Your task to perform on an android device: Open calendar and show me the second week of next month Image 0: 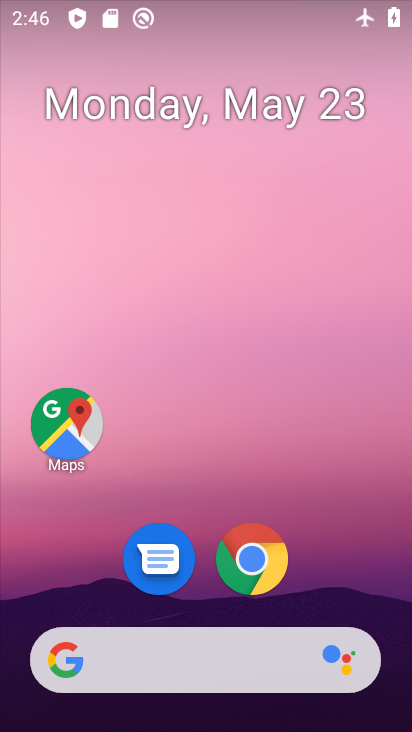
Step 0: drag from (227, 689) to (280, 65)
Your task to perform on an android device: Open calendar and show me the second week of next month Image 1: 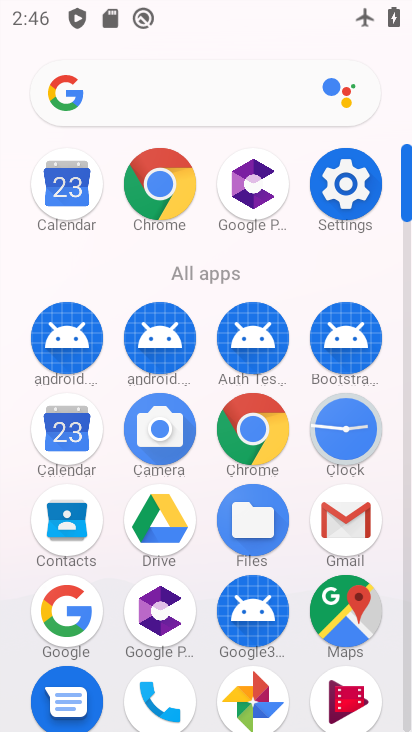
Step 1: click (69, 447)
Your task to perform on an android device: Open calendar and show me the second week of next month Image 2: 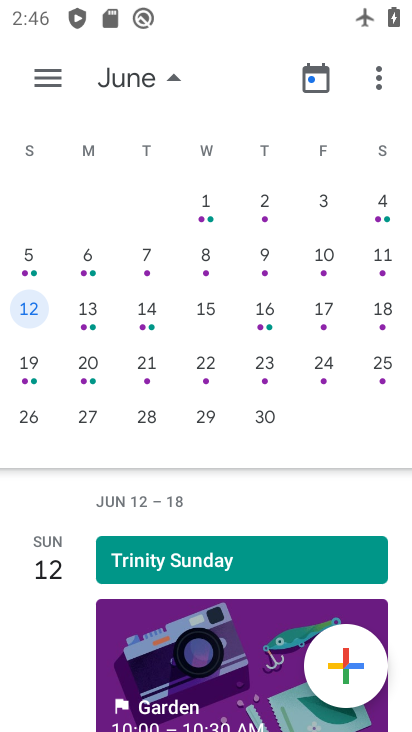
Step 2: task complete